Your task to perform on an android device: open wifi settings Image 0: 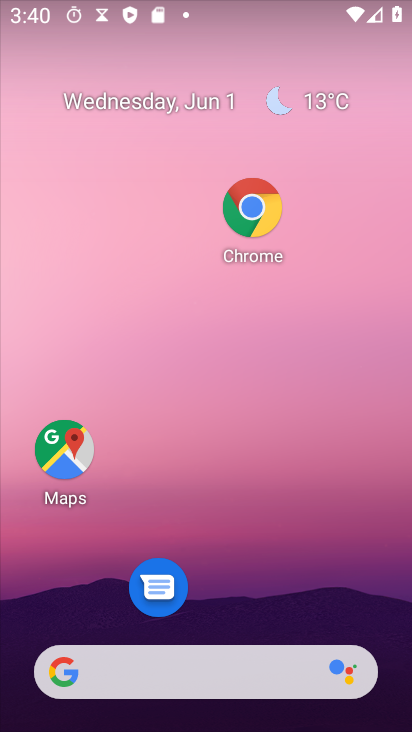
Step 0: drag from (277, 572) to (259, 285)
Your task to perform on an android device: open wifi settings Image 1: 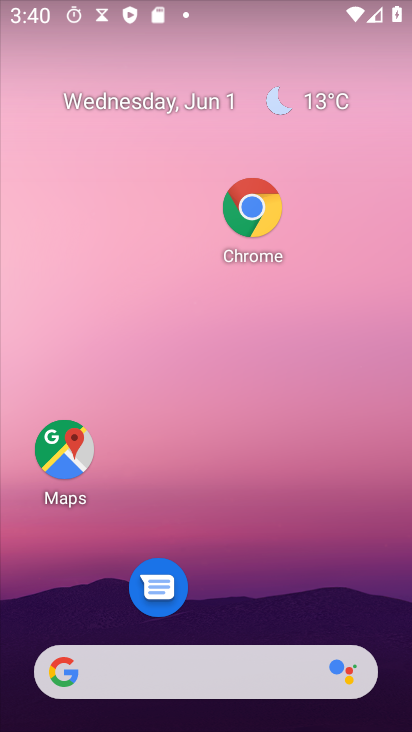
Step 1: drag from (264, 636) to (240, 275)
Your task to perform on an android device: open wifi settings Image 2: 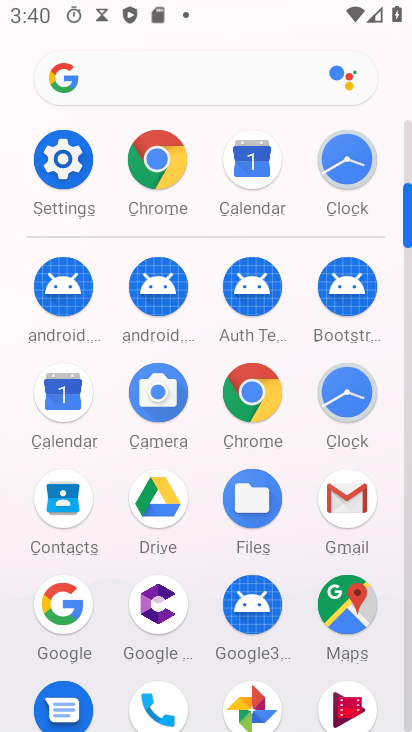
Step 2: click (69, 162)
Your task to perform on an android device: open wifi settings Image 3: 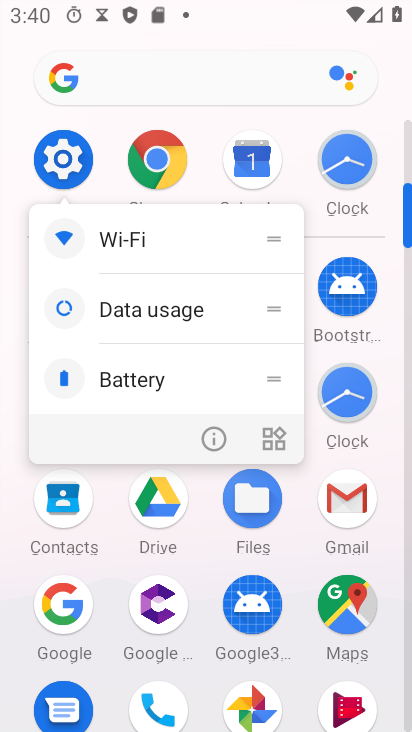
Step 3: click (72, 161)
Your task to perform on an android device: open wifi settings Image 4: 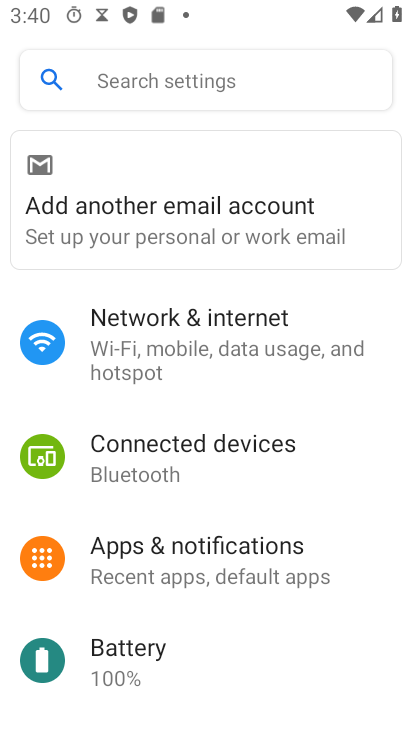
Step 4: press back button
Your task to perform on an android device: open wifi settings Image 5: 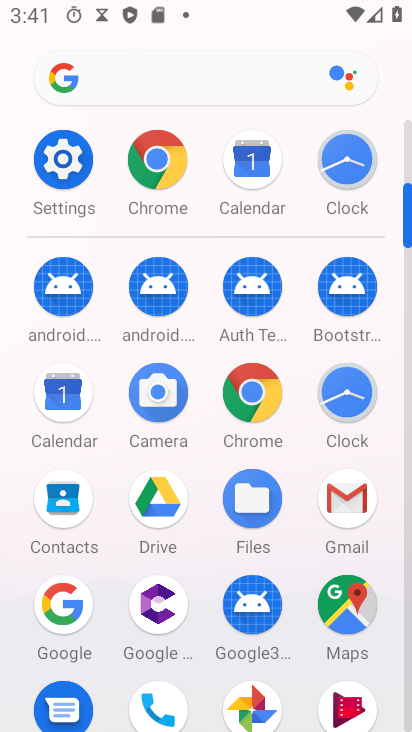
Step 5: click (49, 163)
Your task to perform on an android device: open wifi settings Image 6: 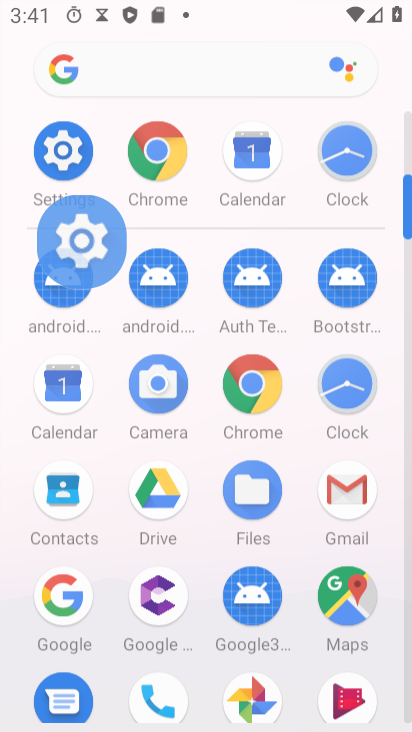
Step 6: click (51, 161)
Your task to perform on an android device: open wifi settings Image 7: 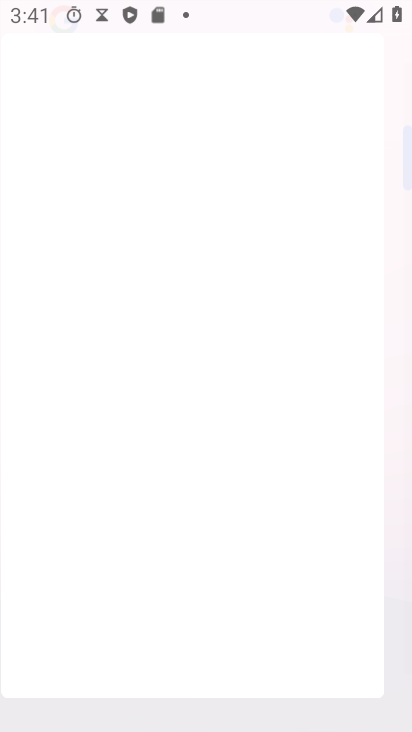
Step 7: click (55, 161)
Your task to perform on an android device: open wifi settings Image 8: 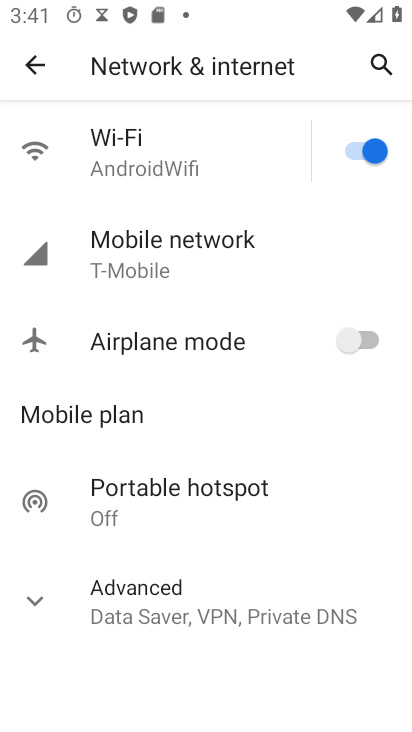
Step 8: task complete